Your task to perform on an android device: Open Google Maps Image 0: 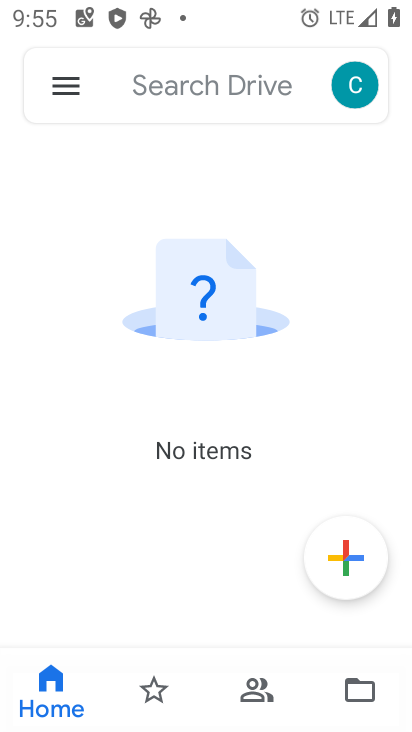
Step 0: press home button
Your task to perform on an android device: Open Google Maps Image 1: 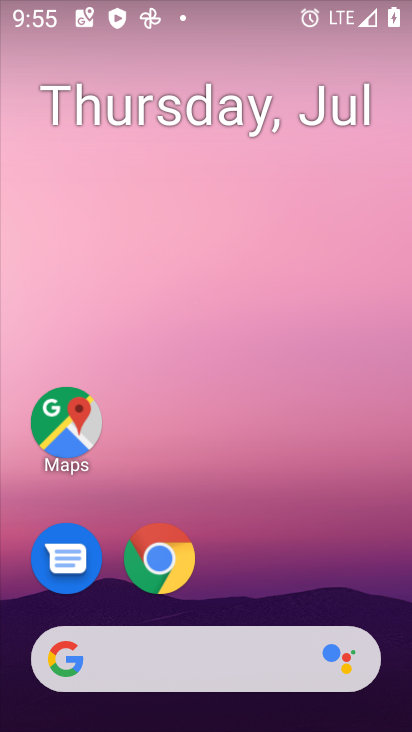
Step 1: drag from (363, 544) to (353, 78)
Your task to perform on an android device: Open Google Maps Image 2: 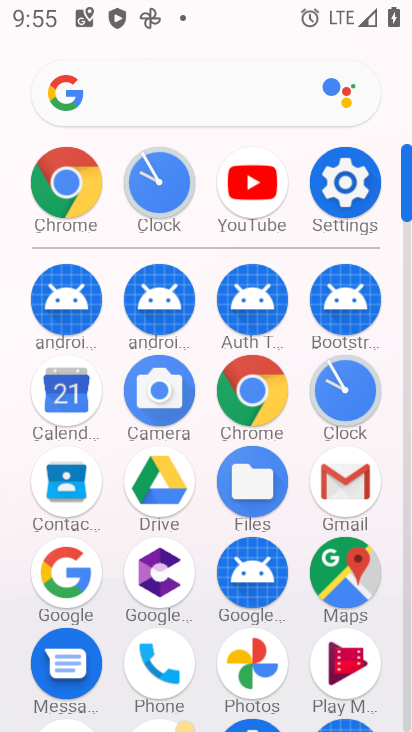
Step 2: click (363, 558)
Your task to perform on an android device: Open Google Maps Image 3: 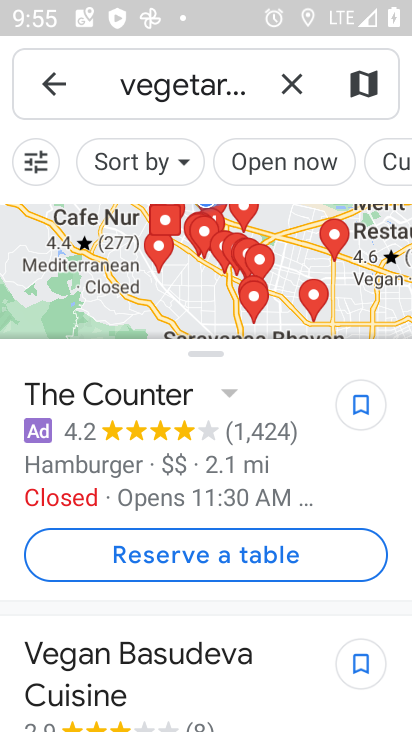
Step 3: task complete